Your task to perform on an android device: Open network settings Image 0: 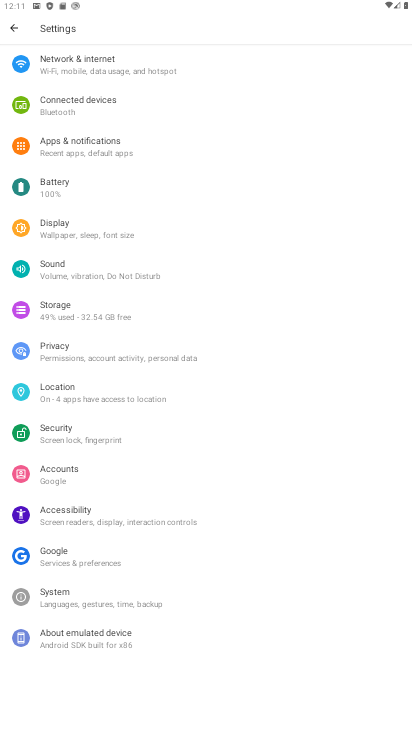
Step 0: click (69, 66)
Your task to perform on an android device: Open network settings Image 1: 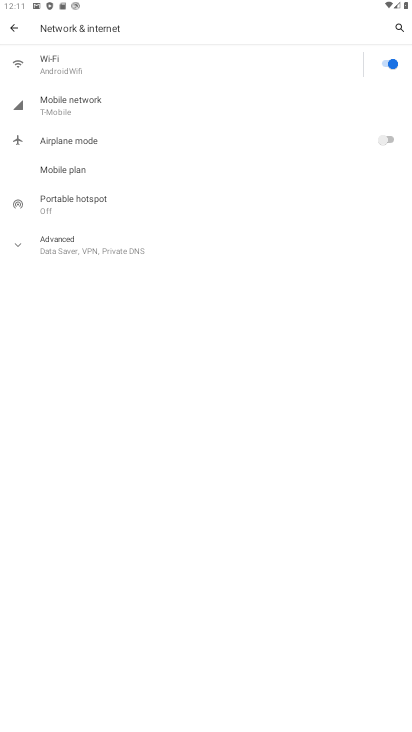
Step 1: task complete